Your task to perform on an android device: Toggle the flashlight Image 0: 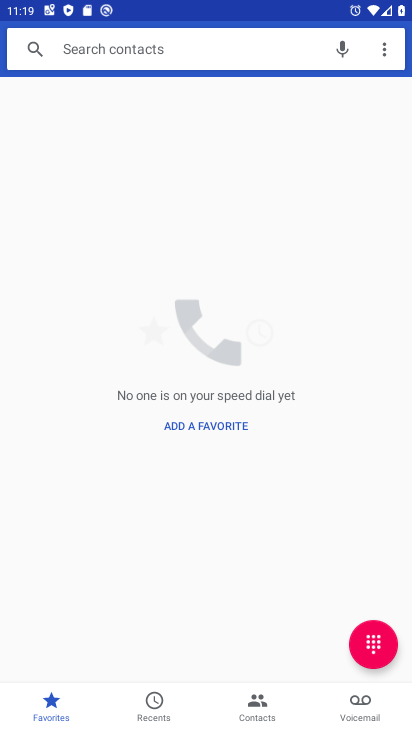
Step 0: press home button
Your task to perform on an android device: Toggle the flashlight Image 1: 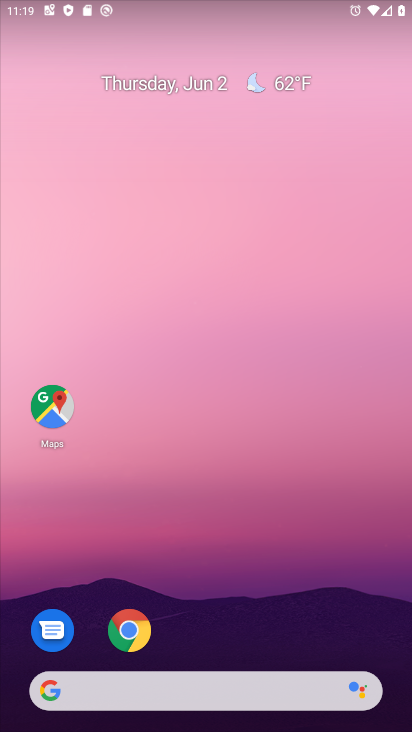
Step 1: task complete